Your task to perform on an android device: turn off sleep mode Image 0: 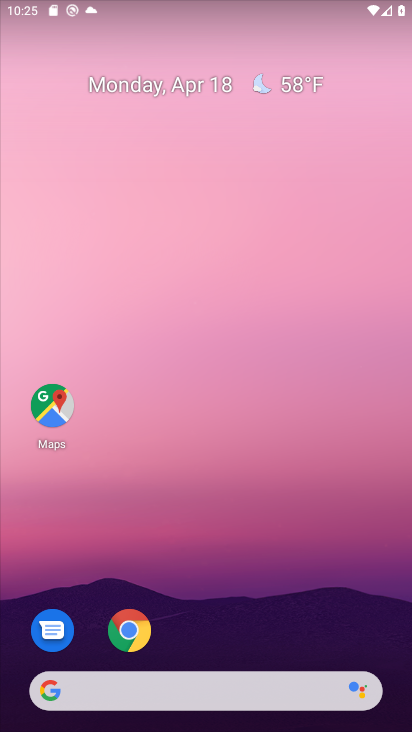
Step 0: drag from (207, 658) to (198, 1)
Your task to perform on an android device: turn off sleep mode Image 1: 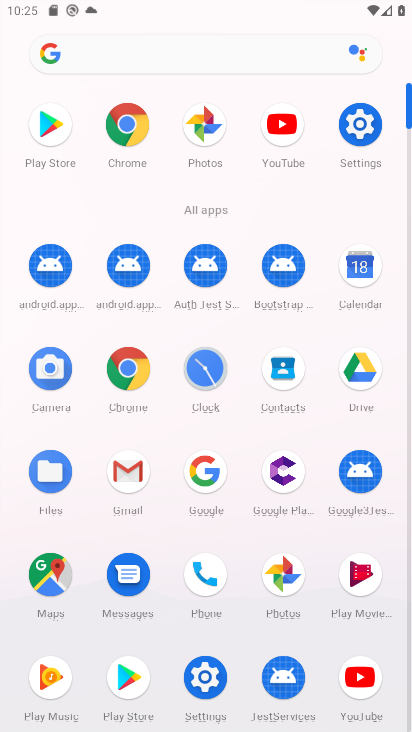
Step 1: click (352, 138)
Your task to perform on an android device: turn off sleep mode Image 2: 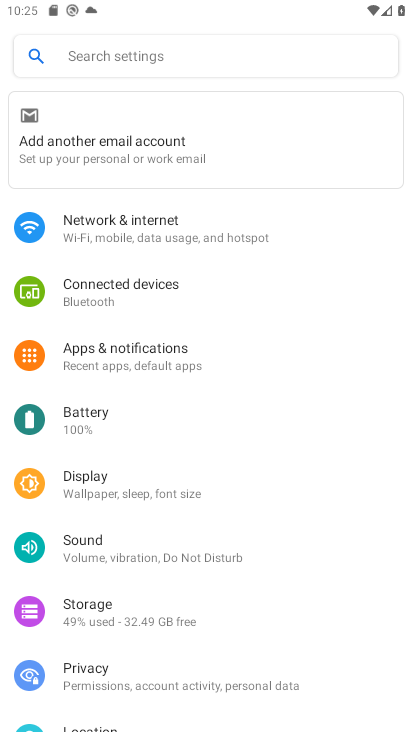
Step 2: click (108, 486)
Your task to perform on an android device: turn off sleep mode Image 3: 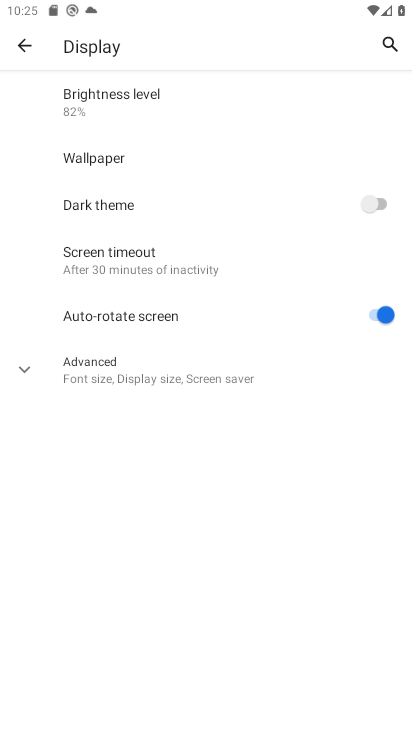
Step 3: click (143, 261)
Your task to perform on an android device: turn off sleep mode Image 4: 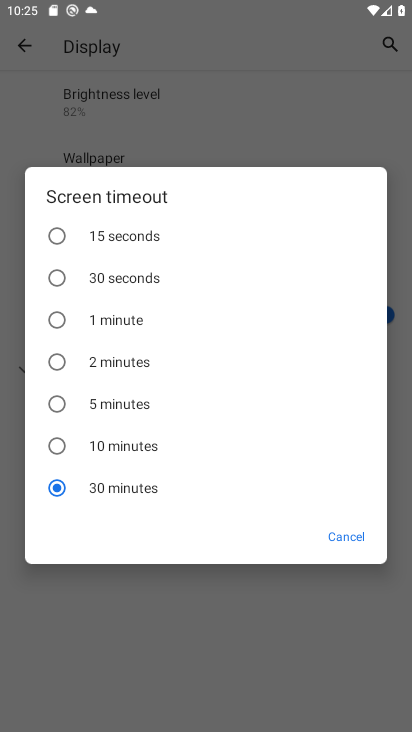
Step 4: task complete